Your task to perform on an android device: Clear the cart on amazon.com. Search for razer kraken on amazon.com, select the first entry, and add it to the cart. Image 0: 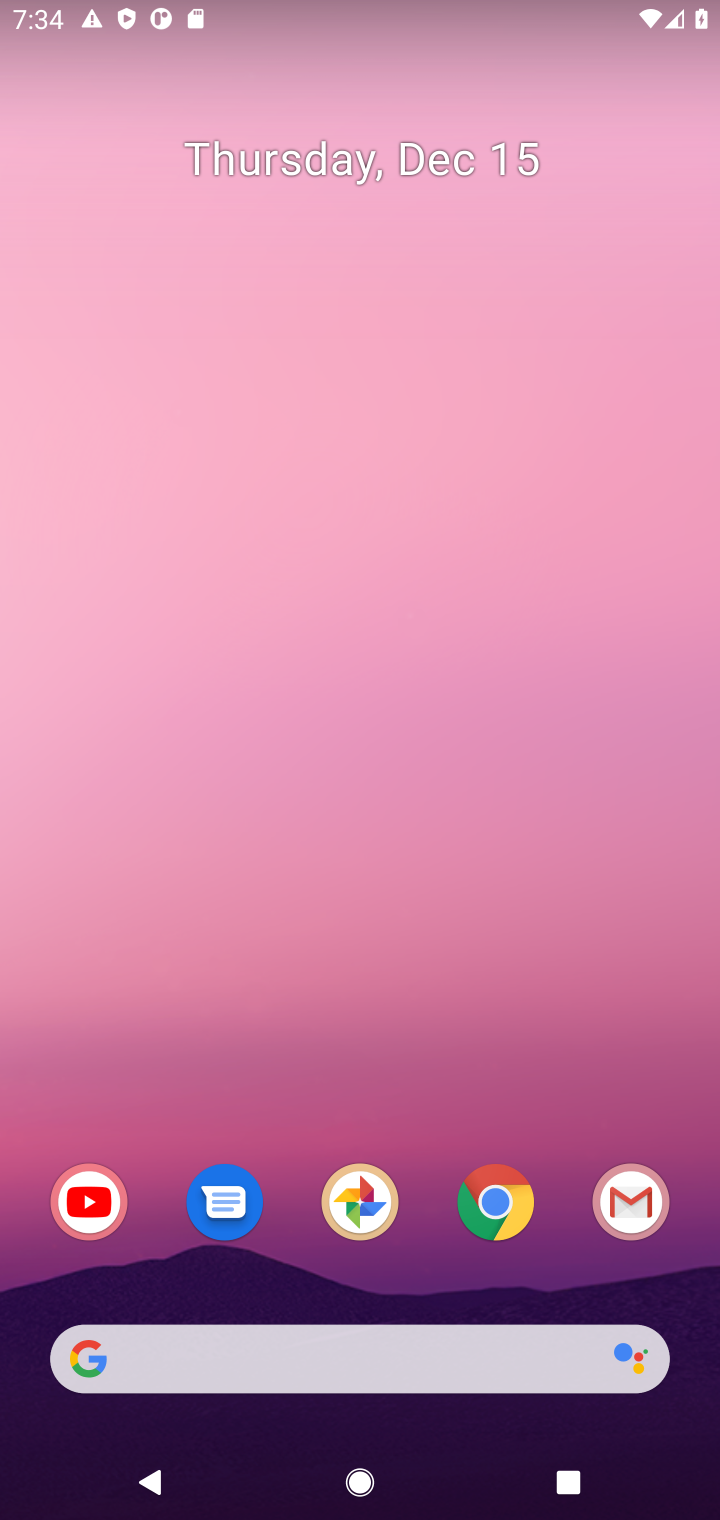
Step 0: click (495, 1215)
Your task to perform on an android device: Clear the cart on amazon.com. Search for razer kraken on amazon.com, select the first entry, and add it to the cart. Image 1: 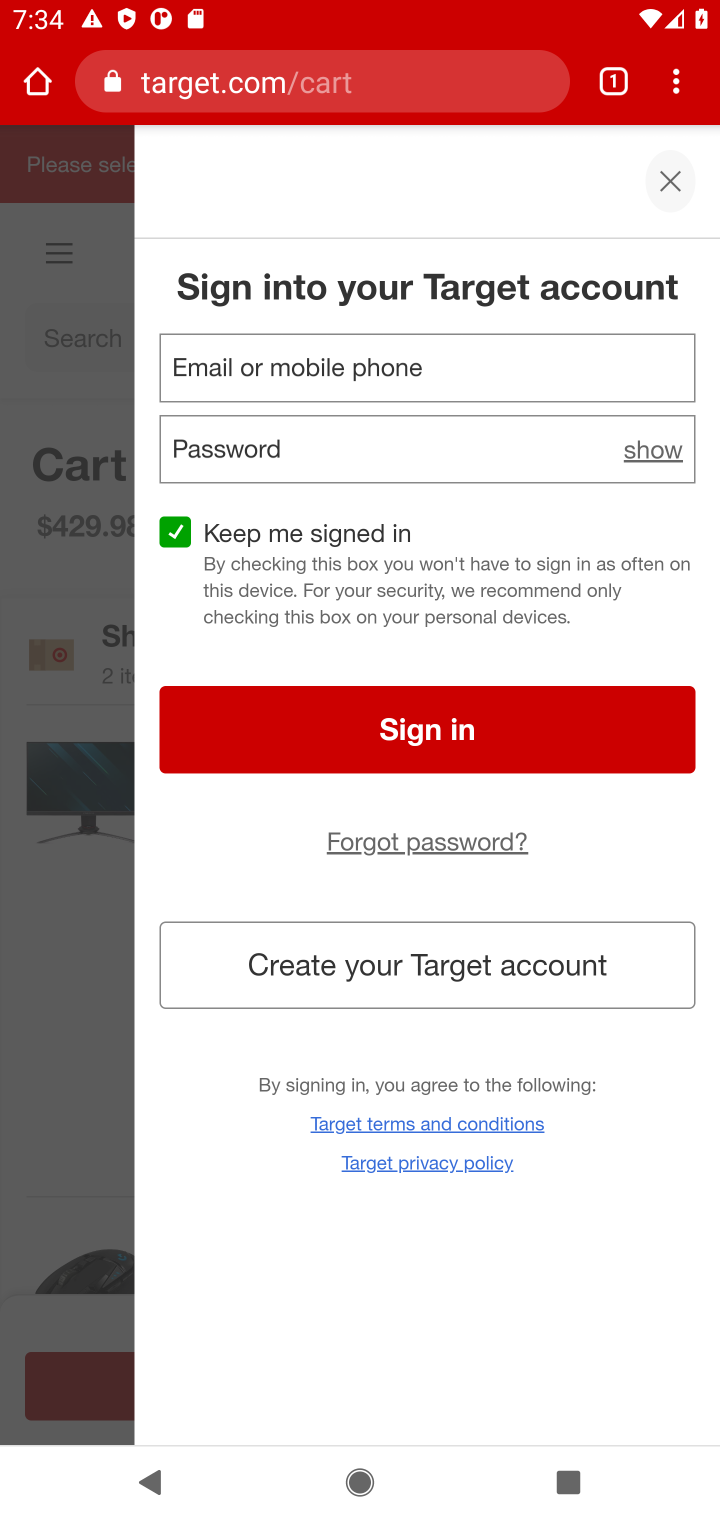
Step 1: click (233, 91)
Your task to perform on an android device: Clear the cart on amazon.com. Search for razer kraken on amazon.com, select the first entry, and add it to the cart. Image 2: 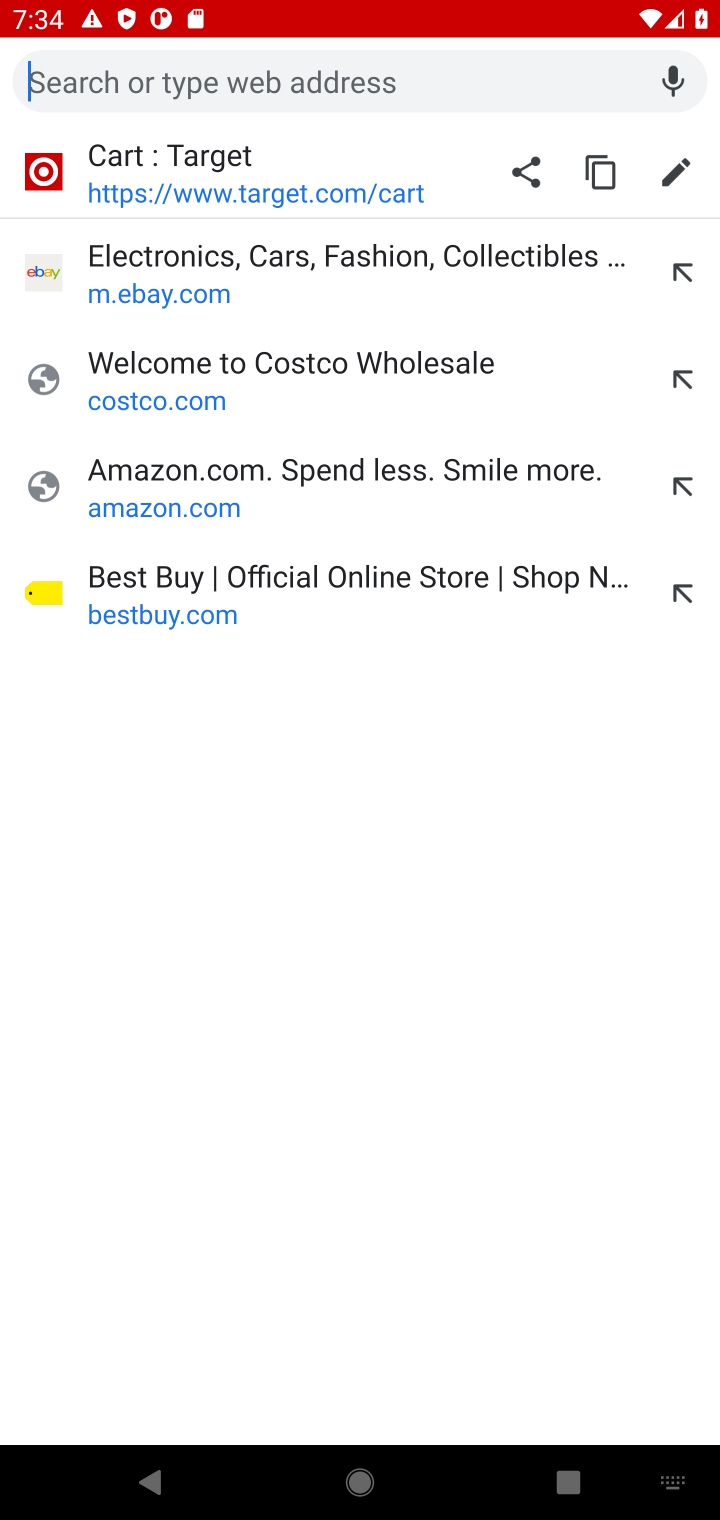
Step 2: click (148, 488)
Your task to perform on an android device: Clear the cart on amazon.com. Search for razer kraken on amazon.com, select the first entry, and add it to the cart. Image 3: 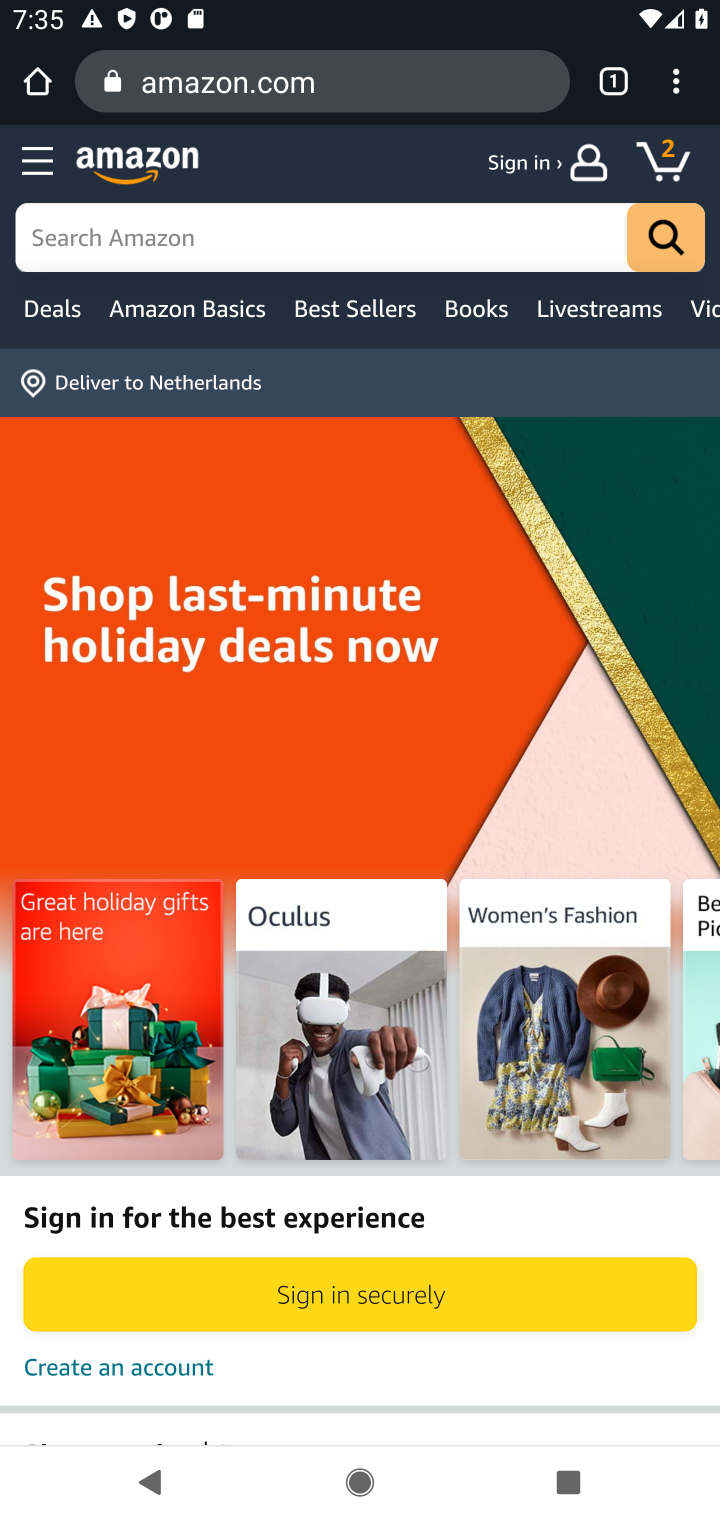
Step 3: click (661, 160)
Your task to perform on an android device: Clear the cart on amazon.com. Search for razer kraken on amazon.com, select the first entry, and add it to the cart. Image 4: 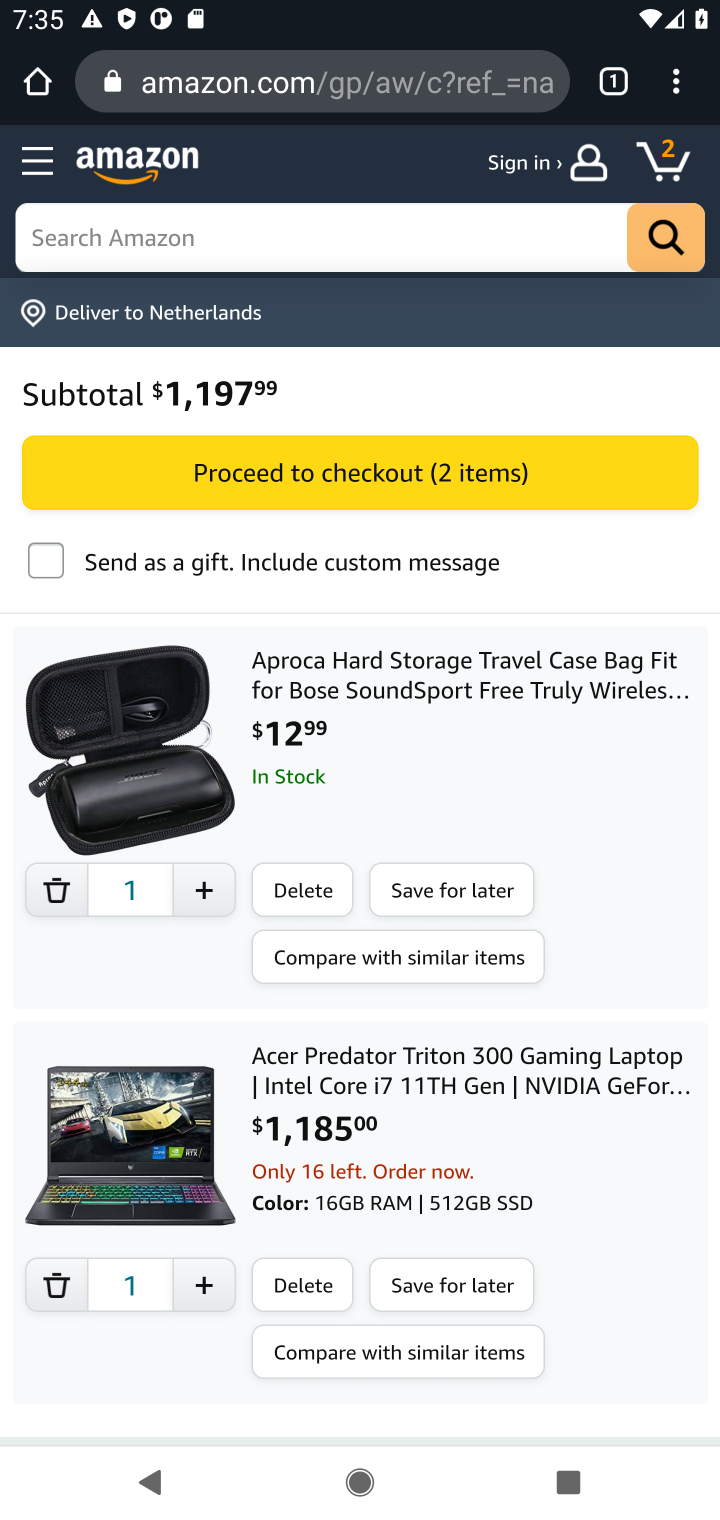
Step 4: click (295, 889)
Your task to perform on an android device: Clear the cart on amazon.com. Search for razer kraken on amazon.com, select the first entry, and add it to the cart. Image 5: 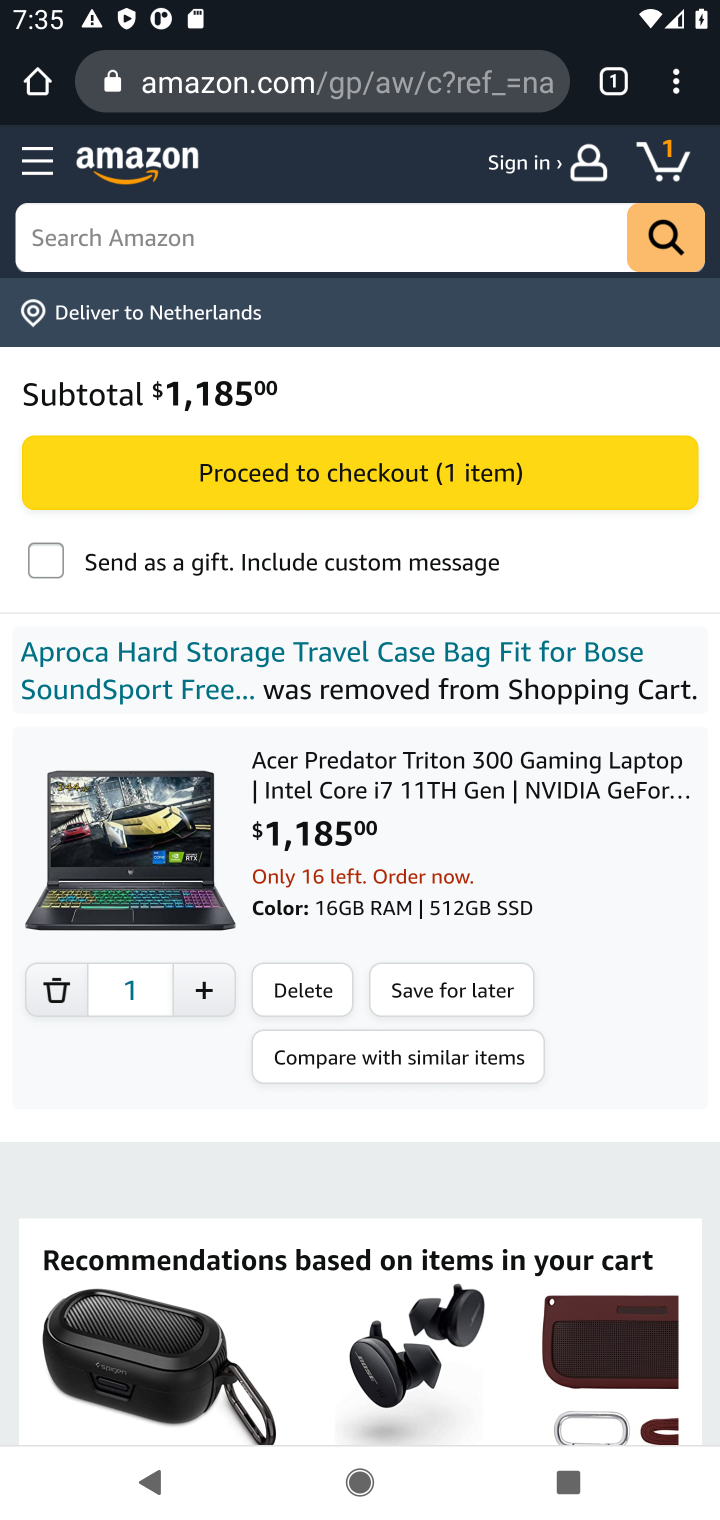
Step 5: click (288, 991)
Your task to perform on an android device: Clear the cart on amazon.com. Search for razer kraken on amazon.com, select the first entry, and add it to the cart. Image 6: 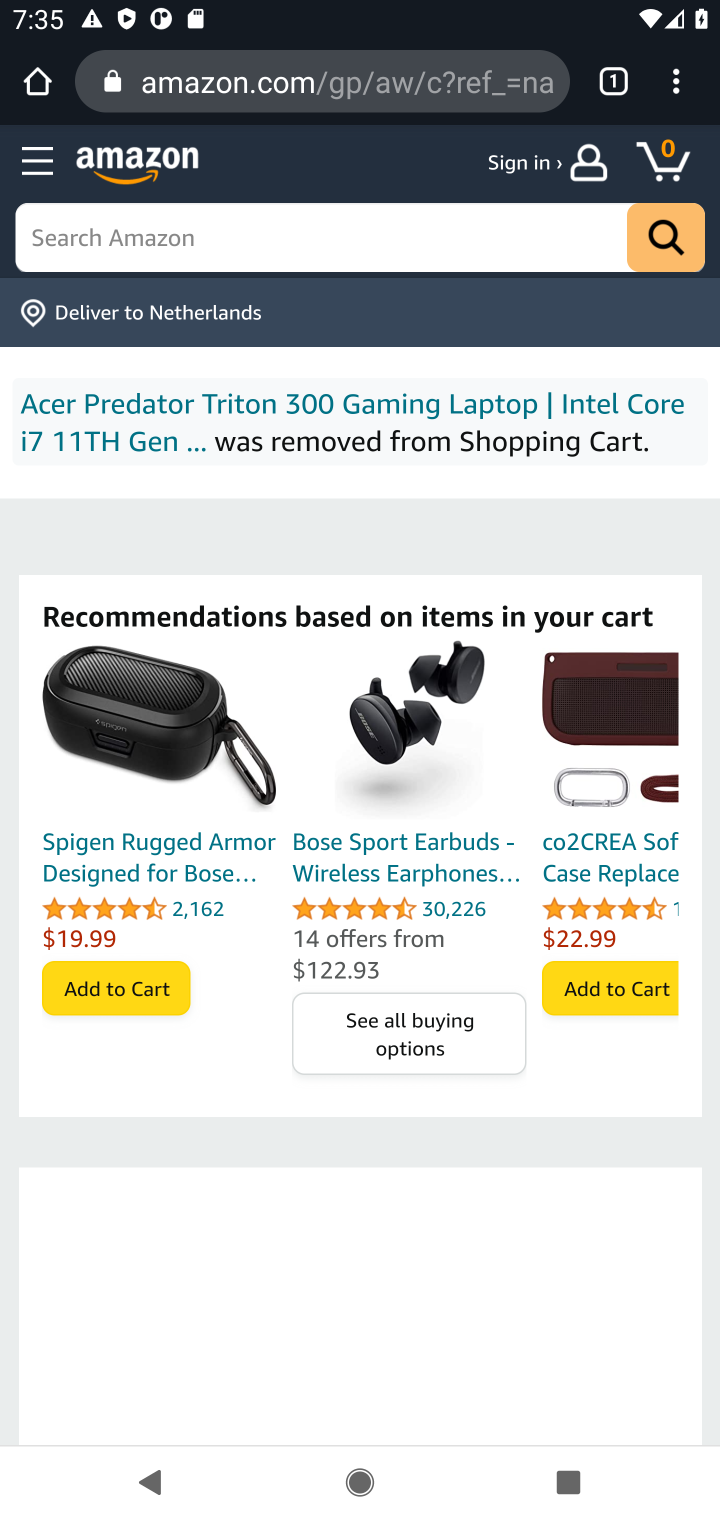
Step 6: click (124, 245)
Your task to perform on an android device: Clear the cart on amazon.com. Search for razer kraken on amazon.com, select the first entry, and add it to the cart. Image 7: 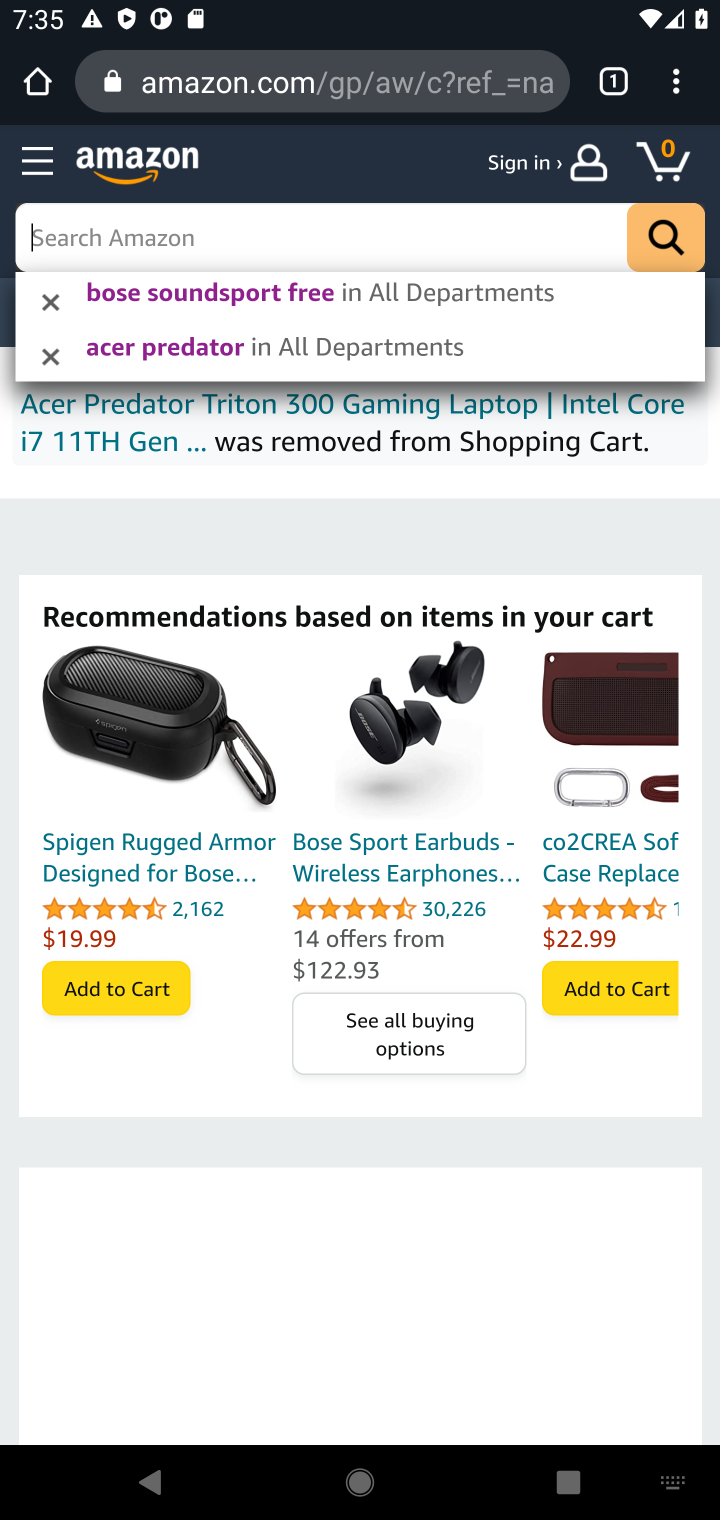
Step 7: type " razer kraken "
Your task to perform on an android device: Clear the cart on amazon.com. Search for razer kraken on amazon.com, select the first entry, and add it to the cart. Image 8: 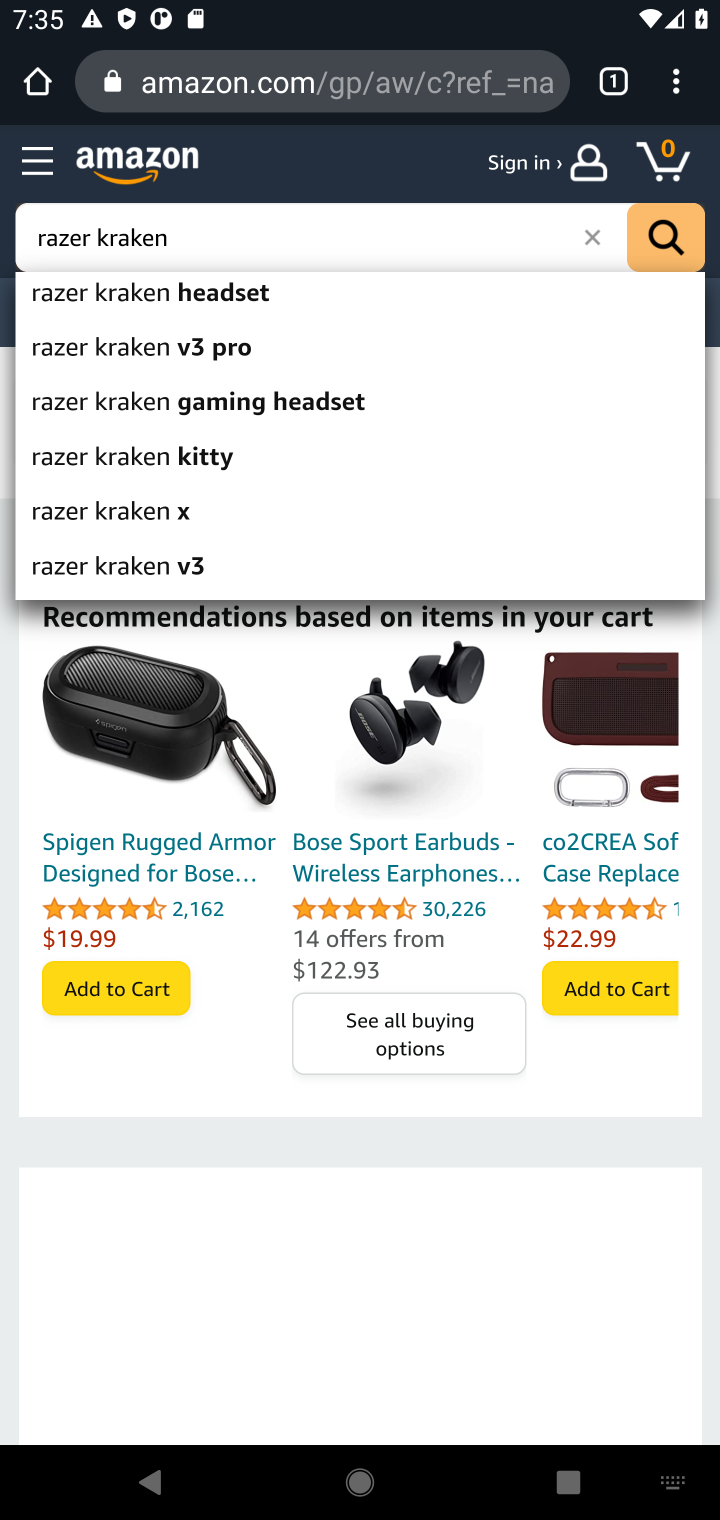
Step 8: click (673, 244)
Your task to perform on an android device: Clear the cart on amazon.com. Search for razer kraken on amazon.com, select the first entry, and add it to the cart. Image 9: 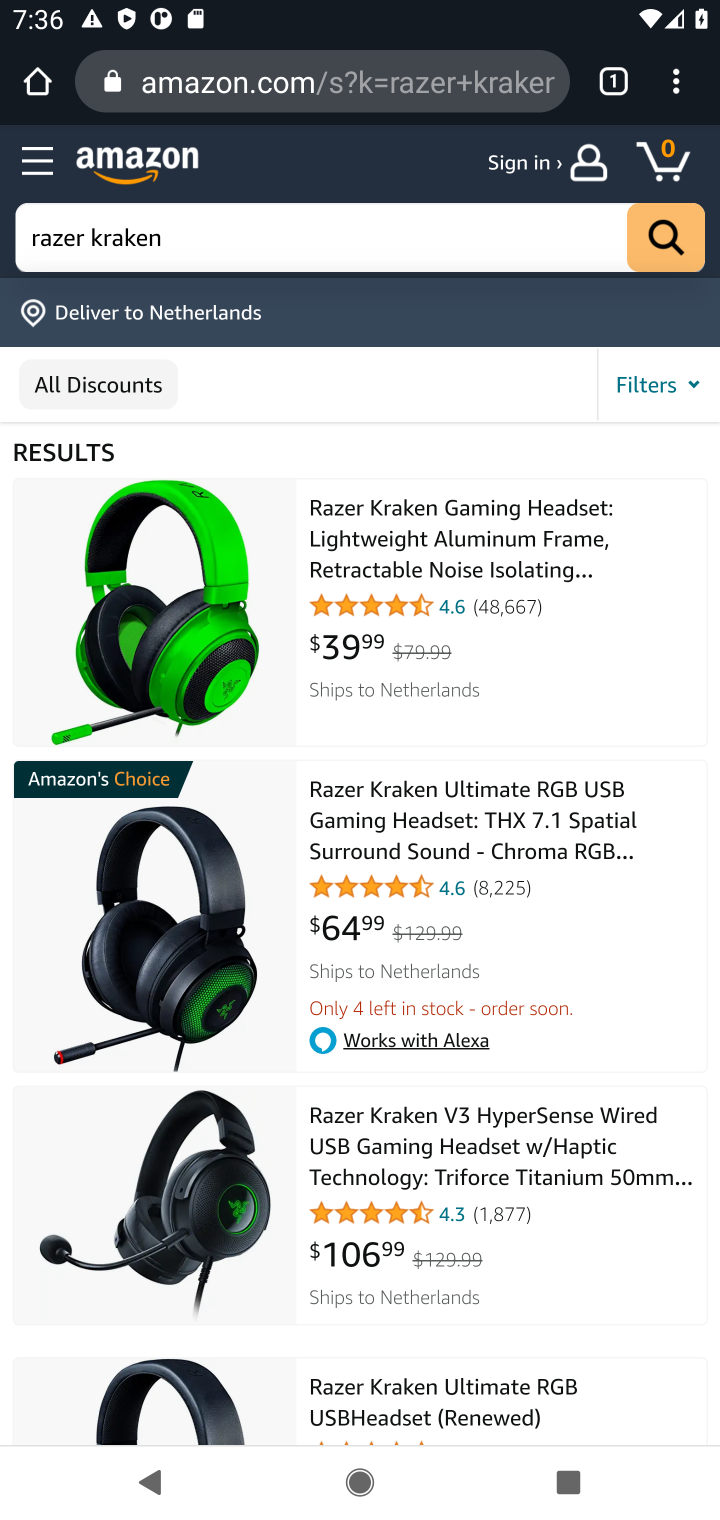
Step 9: click (353, 550)
Your task to perform on an android device: Clear the cart on amazon.com. Search for razer kraken on amazon.com, select the first entry, and add it to the cart. Image 10: 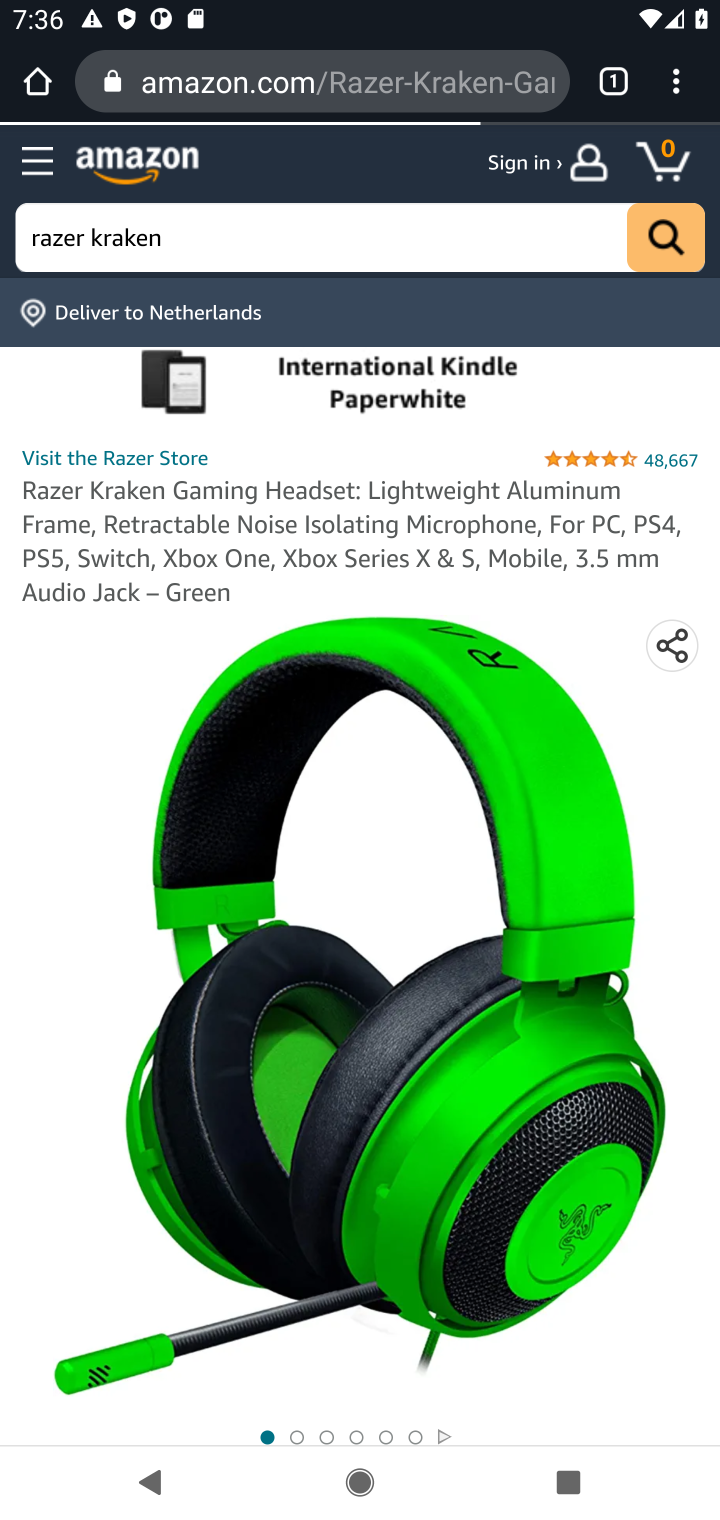
Step 10: drag from (332, 547) to (318, 392)
Your task to perform on an android device: Clear the cart on amazon.com. Search for razer kraken on amazon.com, select the first entry, and add it to the cart. Image 11: 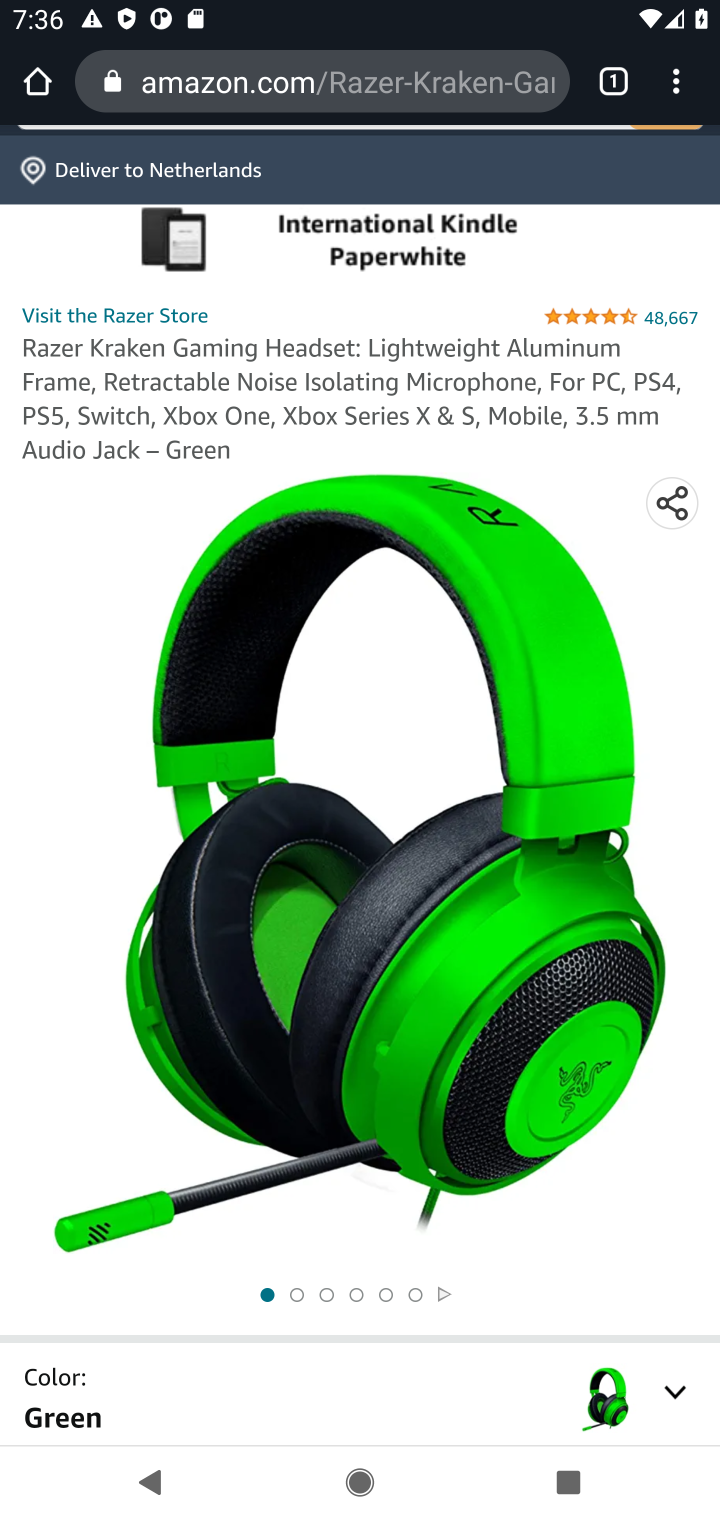
Step 11: drag from (362, 910) to (316, 423)
Your task to perform on an android device: Clear the cart on amazon.com. Search for razer kraken on amazon.com, select the first entry, and add it to the cart. Image 12: 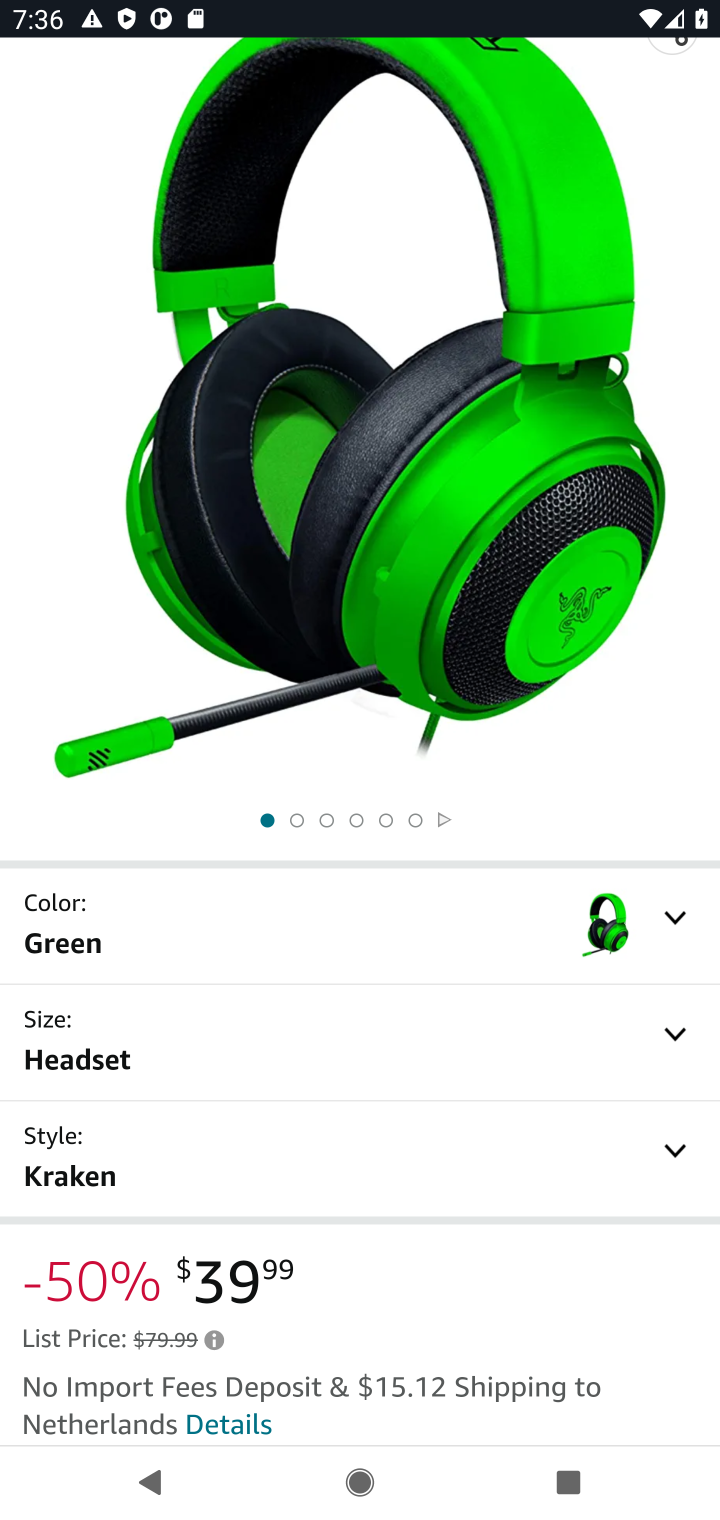
Step 12: drag from (358, 904) to (324, 382)
Your task to perform on an android device: Clear the cart on amazon.com. Search for razer kraken on amazon.com, select the first entry, and add it to the cart. Image 13: 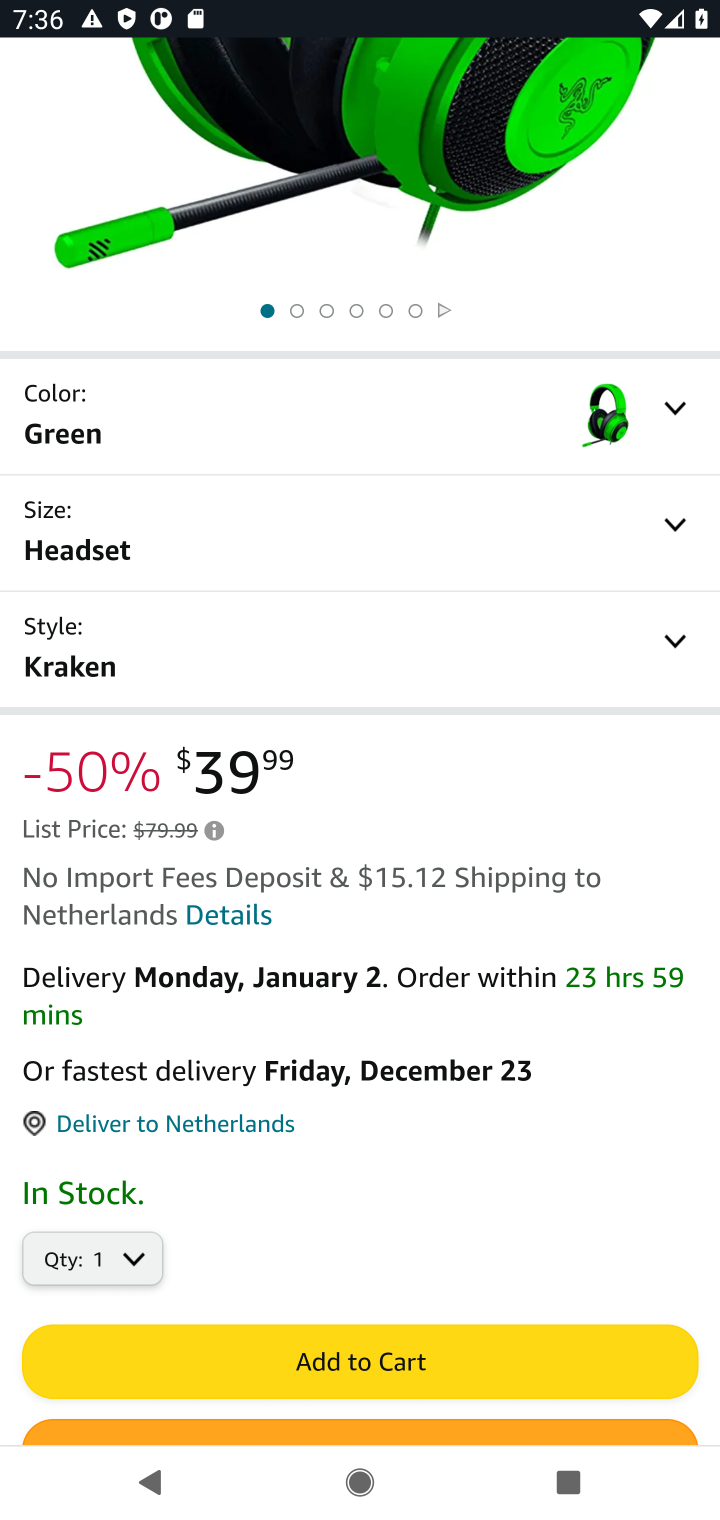
Step 13: click (320, 1361)
Your task to perform on an android device: Clear the cart on amazon.com. Search for razer kraken on amazon.com, select the first entry, and add it to the cart. Image 14: 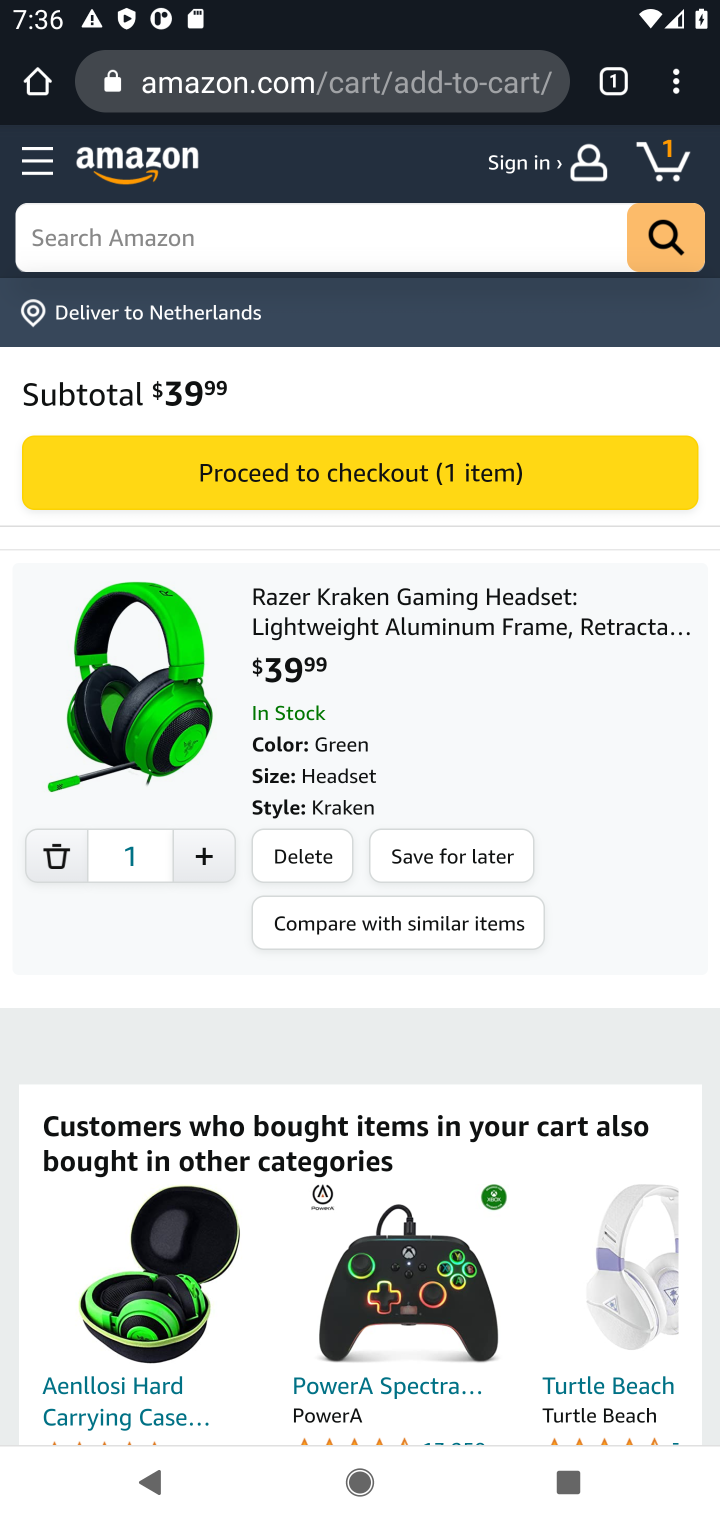
Step 14: task complete